Your task to perform on an android device: Is it going to rain today? Image 0: 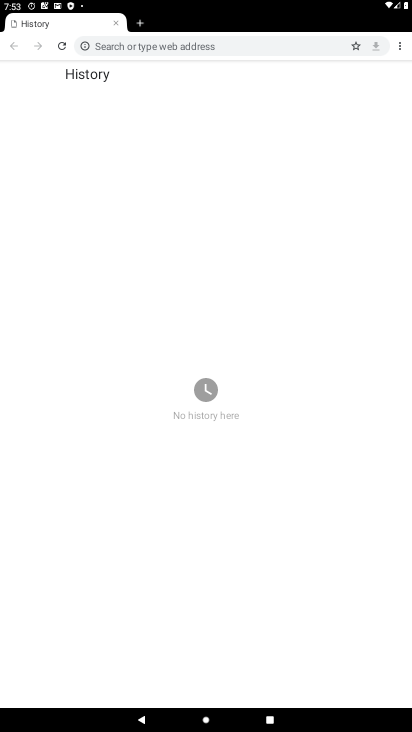
Step 0: press home button
Your task to perform on an android device: Is it going to rain today? Image 1: 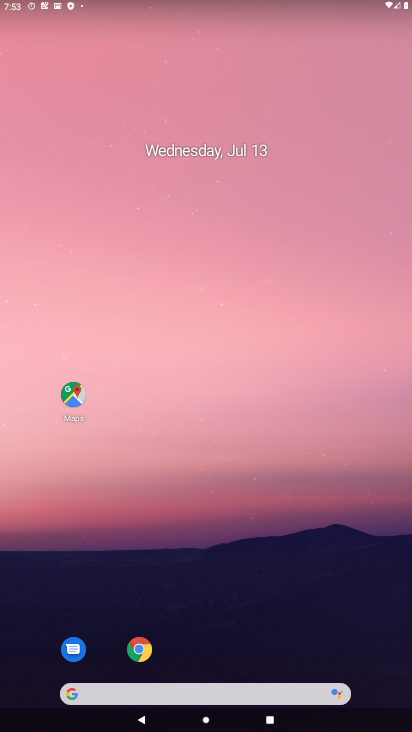
Step 1: click (182, 692)
Your task to perform on an android device: Is it going to rain today? Image 2: 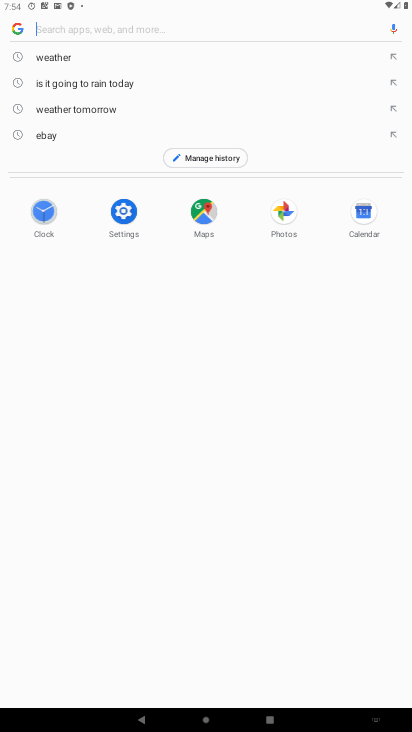
Step 2: click (56, 58)
Your task to perform on an android device: Is it going to rain today? Image 3: 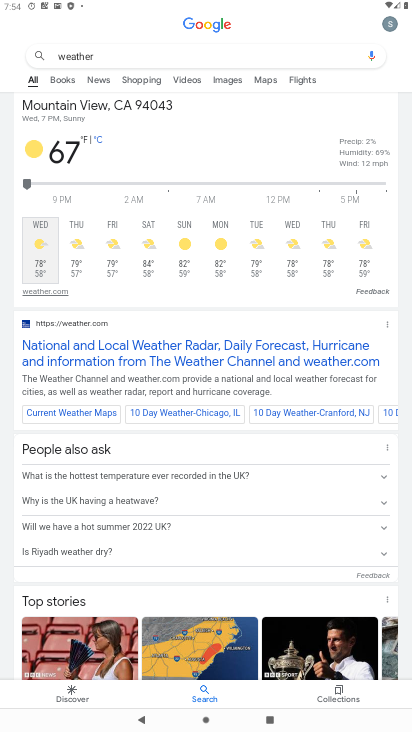
Step 3: task complete